Your task to perform on an android device: Open display settings Image 0: 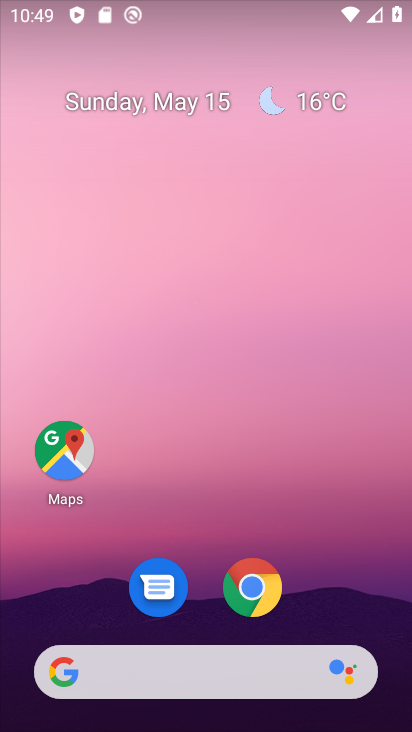
Step 0: drag from (308, 538) to (204, 4)
Your task to perform on an android device: Open display settings Image 1: 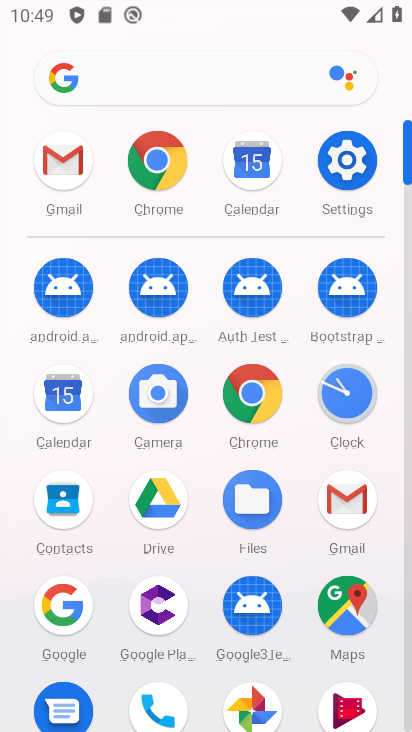
Step 1: drag from (6, 557) to (14, 274)
Your task to perform on an android device: Open display settings Image 2: 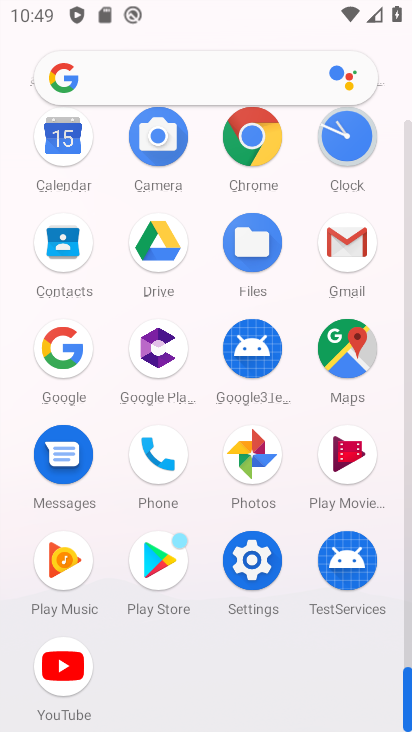
Step 2: click (252, 562)
Your task to perform on an android device: Open display settings Image 3: 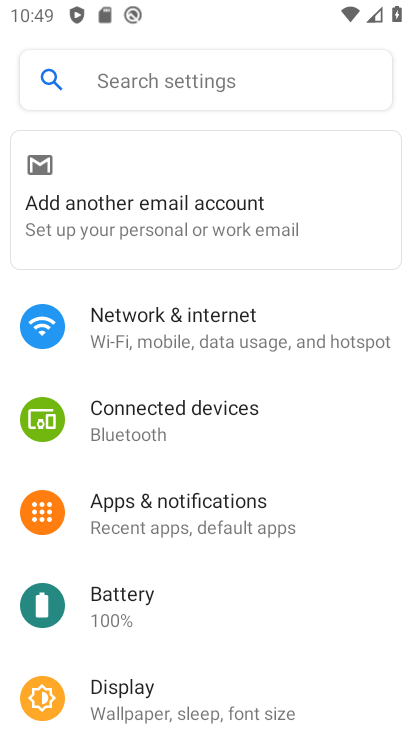
Step 3: click (156, 703)
Your task to perform on an android device: Open display settings Image 4: 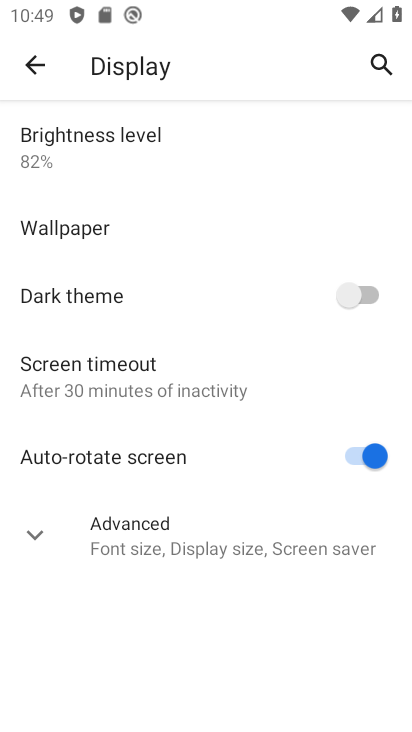
Step 4: click (50, 539)
Your task to perform on an android device: Open display settings Image 5: 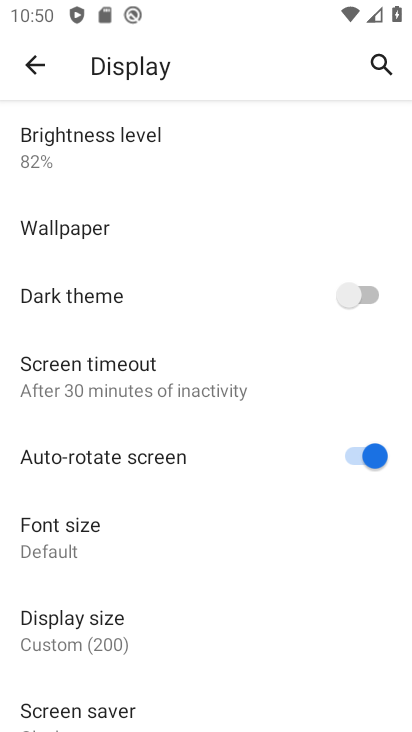
Step 5: task complete